Your task to perform on an android device: Open CNN.com Image 0: 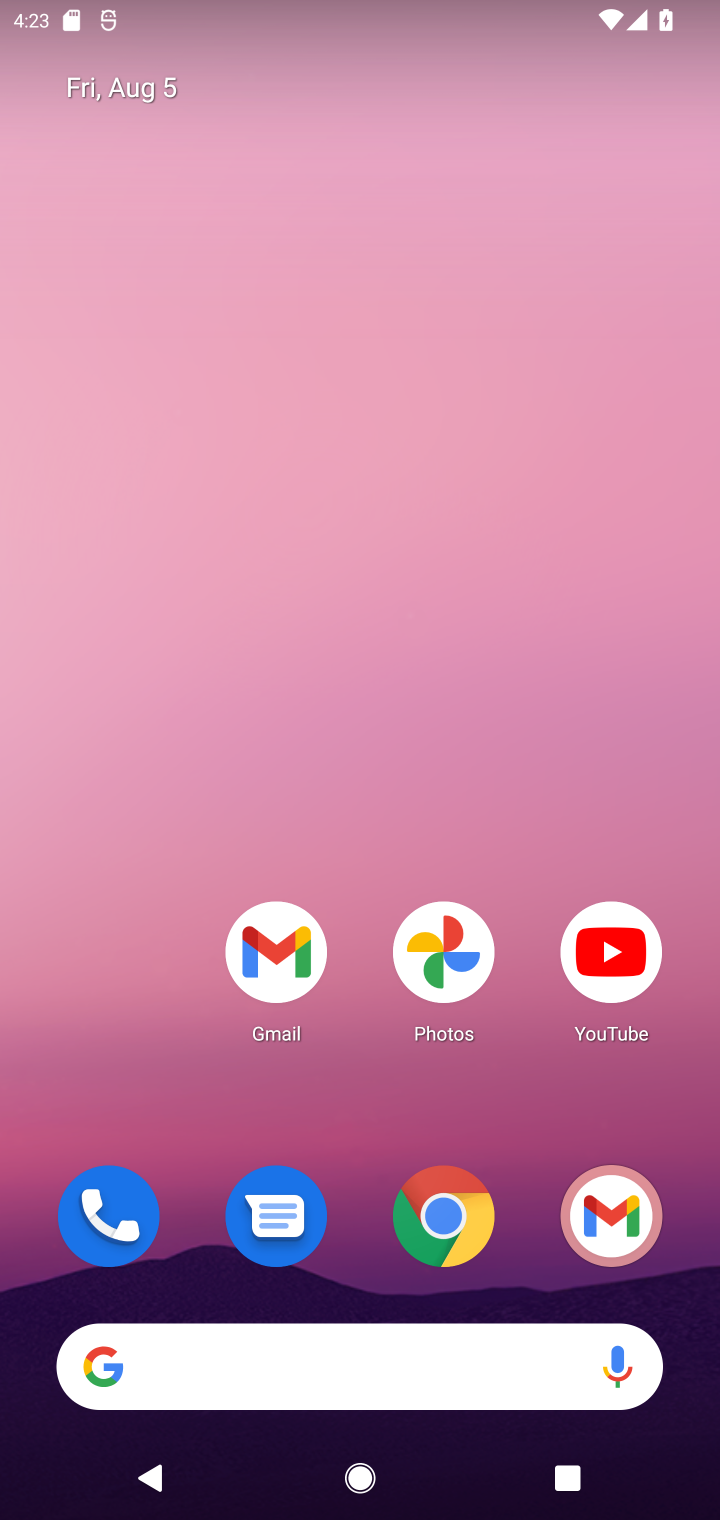
Step 0: click (466, 1205)
Your task to perform on an android device: Open CNN.com Image 1: 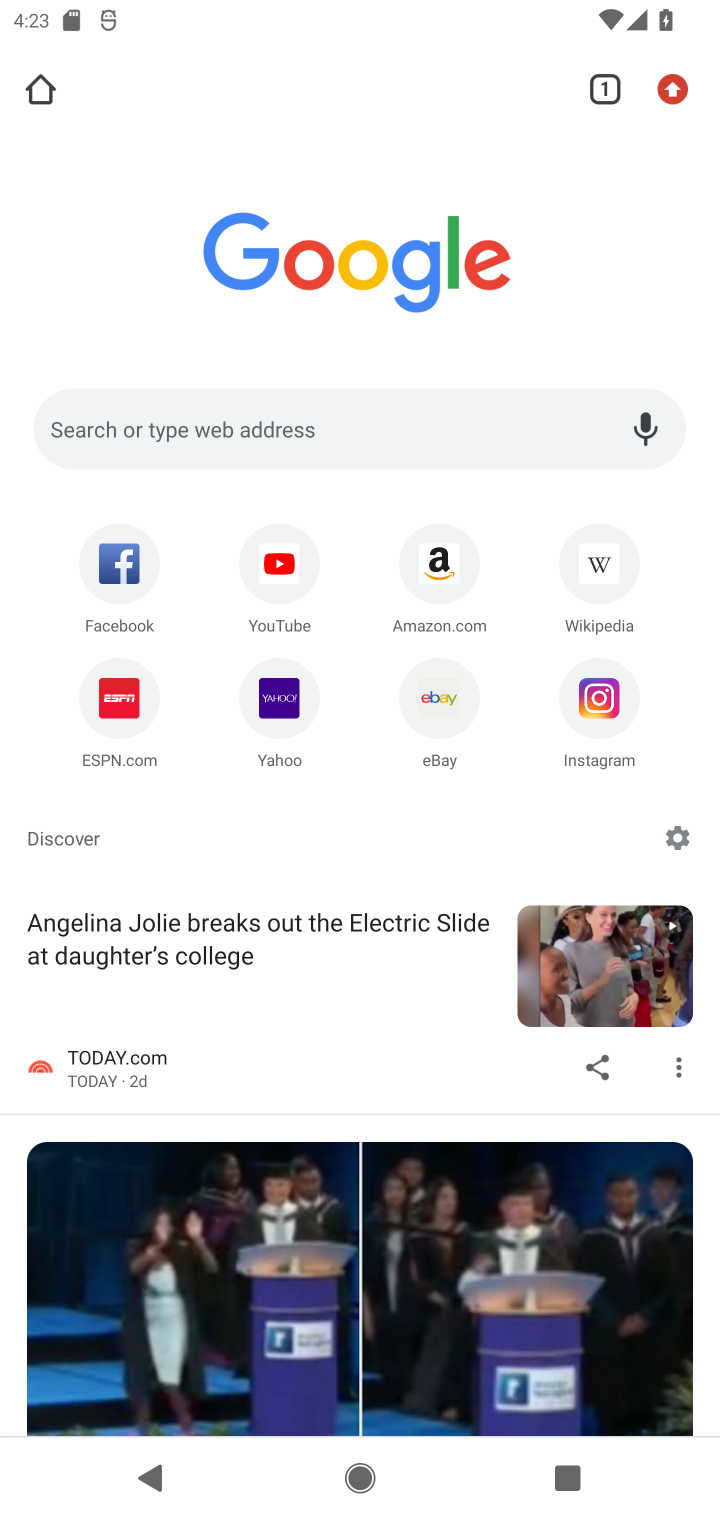
Step 1: click (439, 421)
Your task to perform on an android device: Open CNN.com Image 2: 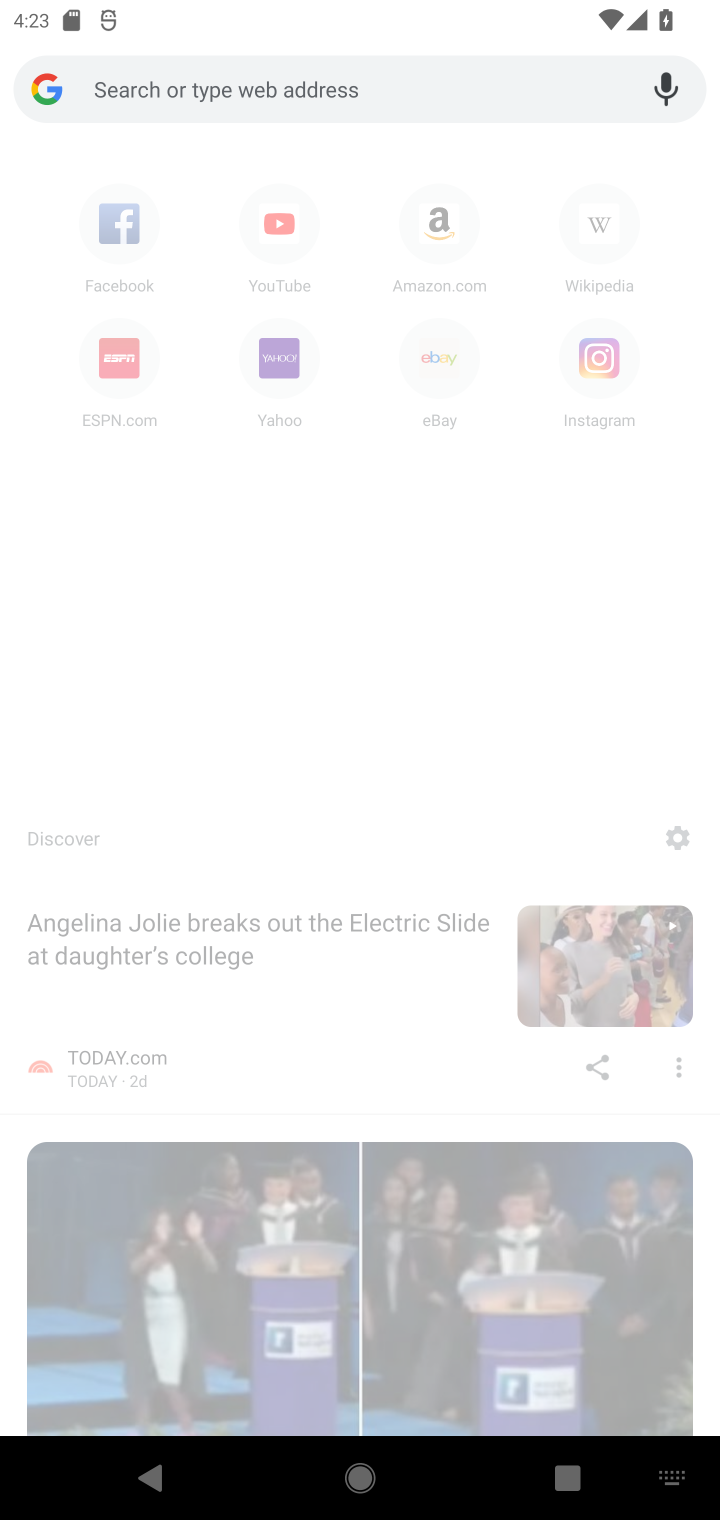
Step 2: type "cnn.com"
Your task to perform on an android device: Open CNN.com Image 3: 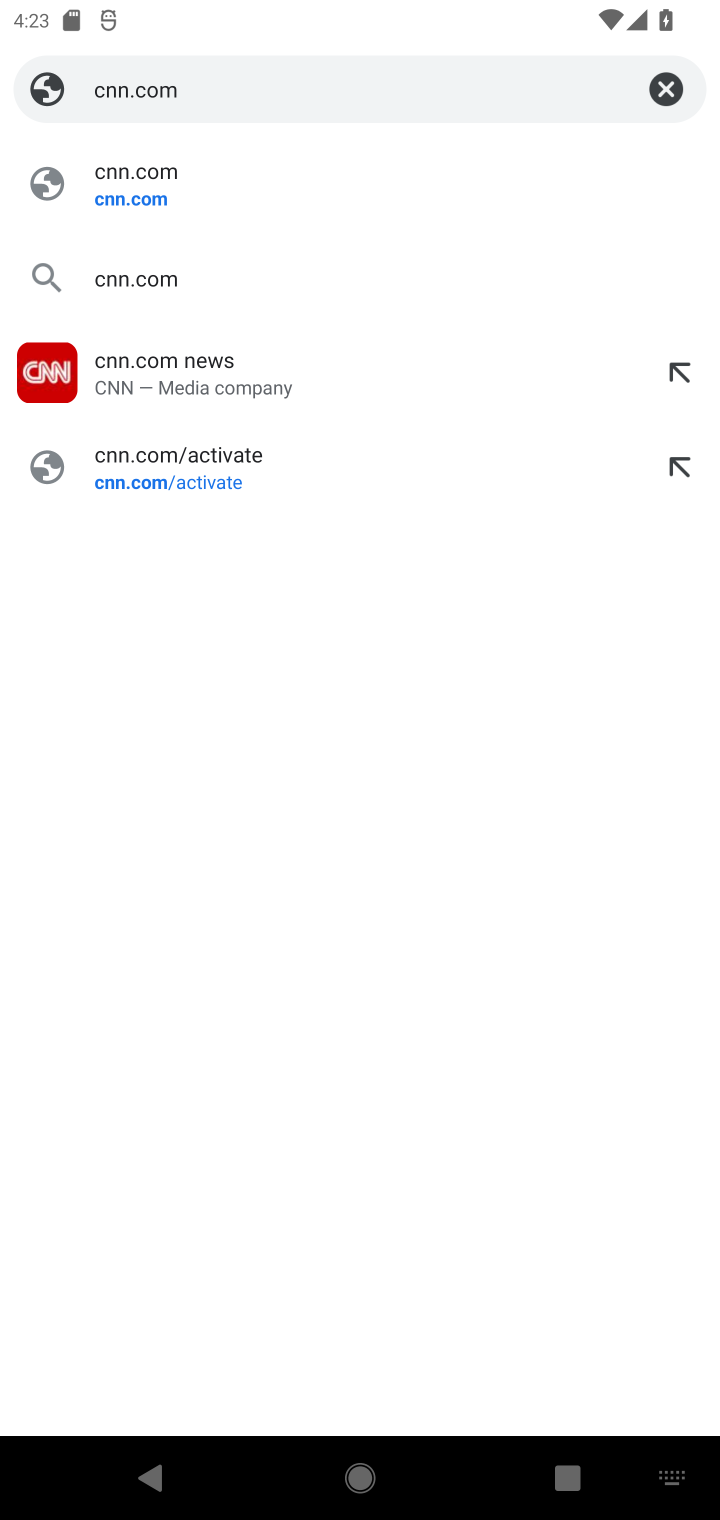
Step 3: click (120, 370)
Your task to perform on an android device: Open CNN.com Image 4: 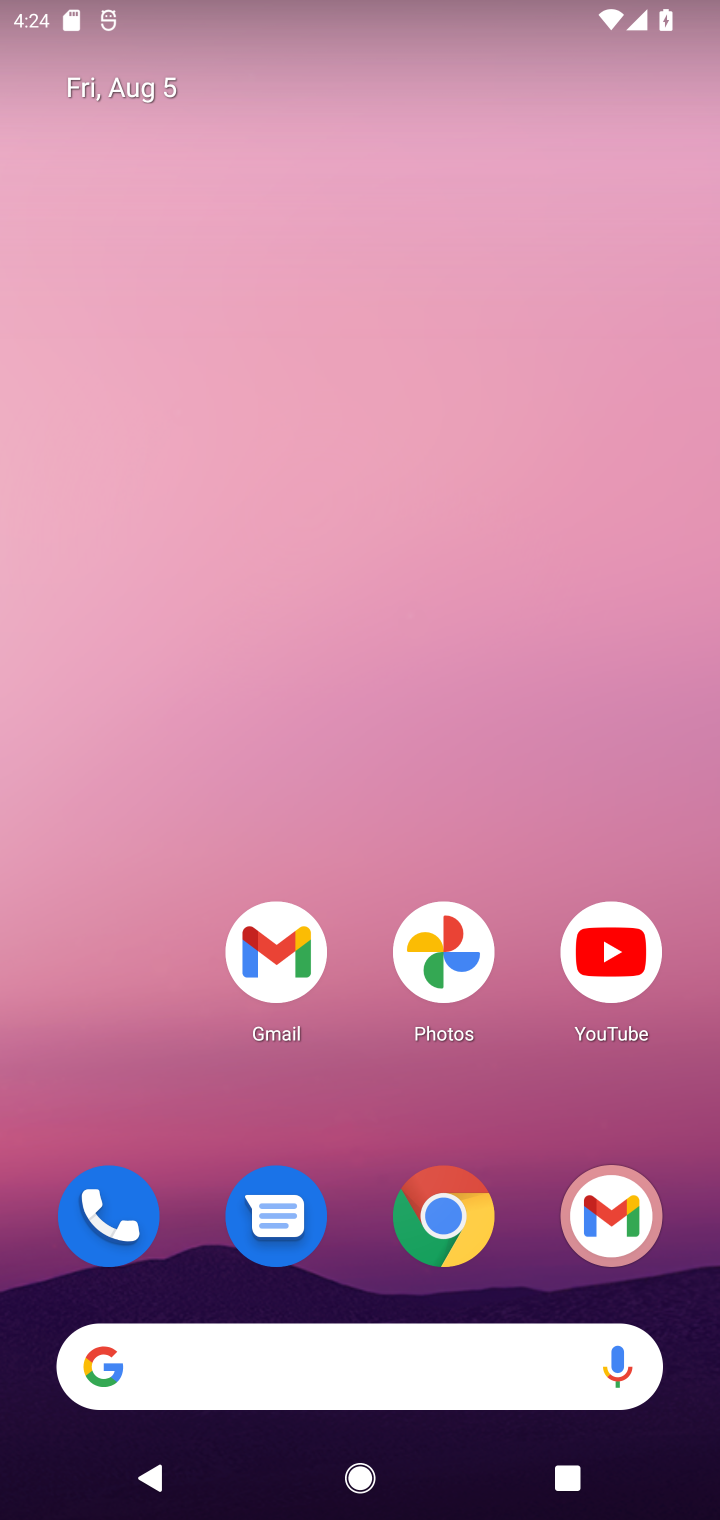
Step 4: task complete